Your task to perform on an android device: check out phone information Image 0: 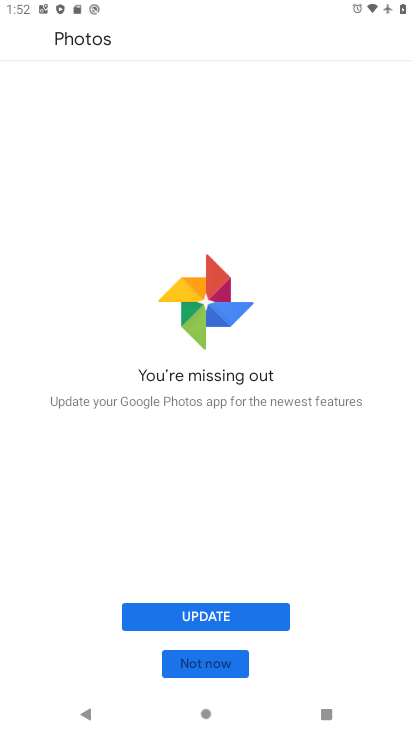
Step 0: press home button
Your task to perform on an android device: check out phone information Image 1: 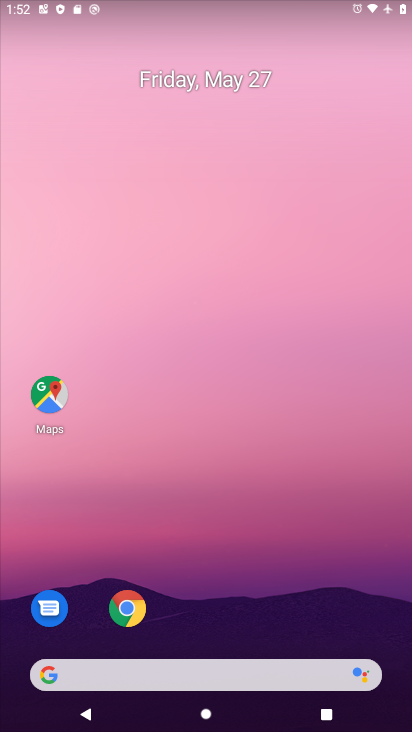
Step 1: drag from (209, 656) to (317, 190)
Your task to perform on an android device: check out phone information Image 2: 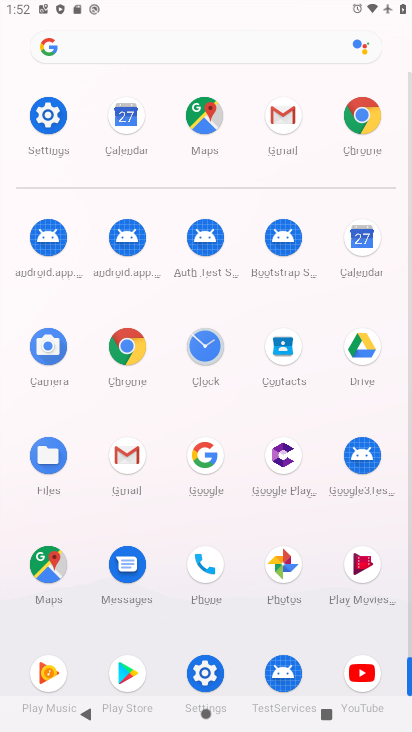
Step 2: click (47, 112)
Your task to perform on an android device: check out phone information Image 3: 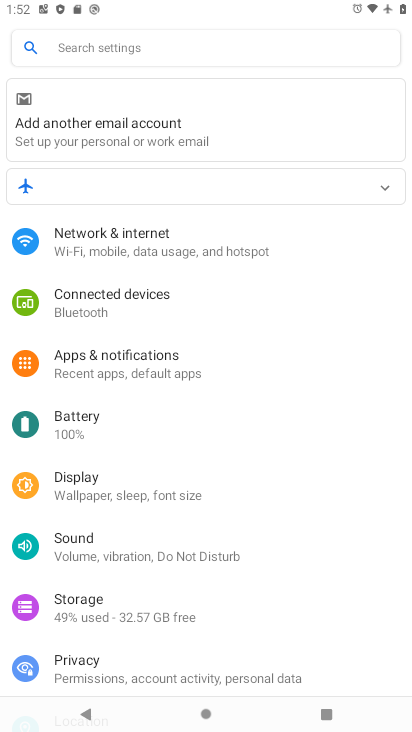
Step 3: drag from (186, 667) to (360, 77)
Your task to perform on an android device: check out phone information Image 4: 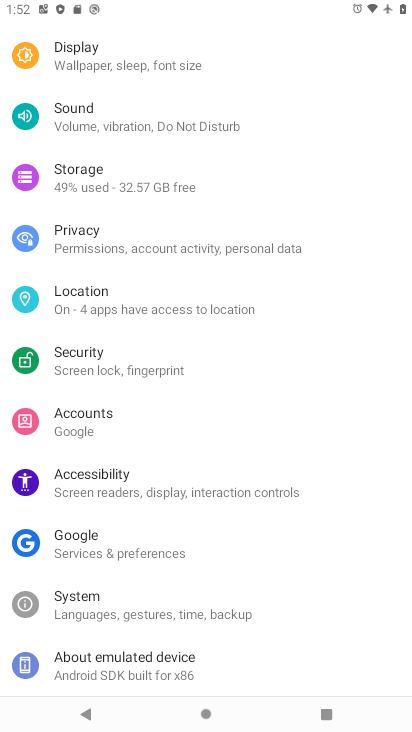
Step 4: click (159, 656)
Your task to perform on an android device: check out phone information Image 5: 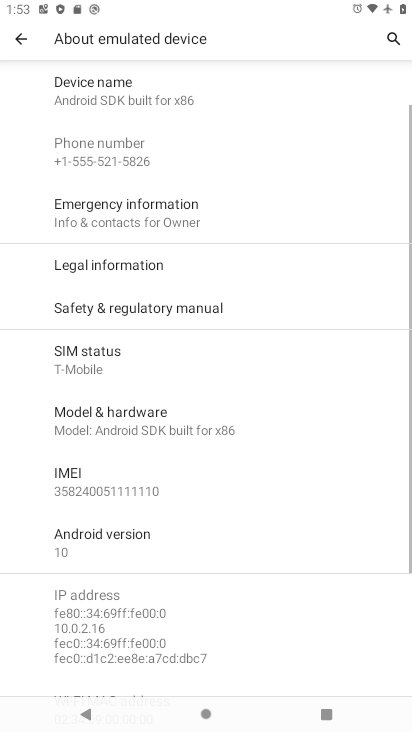
Step 5: task complete